Your task to perform on an android device: Open CNN.com Image 0: 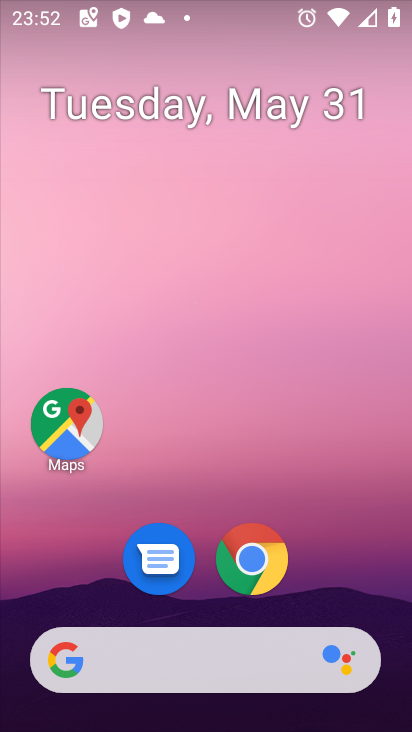
Step 0: drag from (314, 580) to (301, 37)
Your task to perform on an android device: Open CNN.com Image 1: 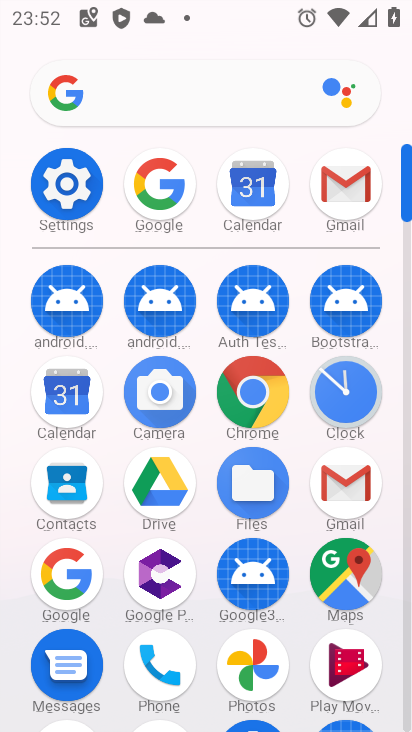
Step 1: click (154, 194)
Your task to perform on an android device: Open CNN.com Image 2: 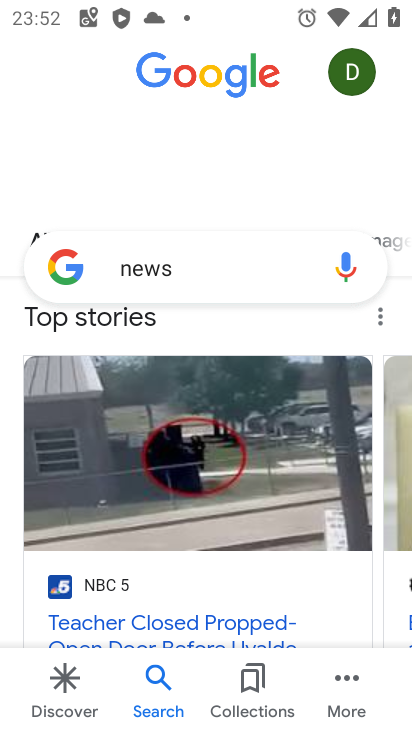
Step 2: click (213, 276)
Your task to perform on an android device: Open CNN.com Image 3: 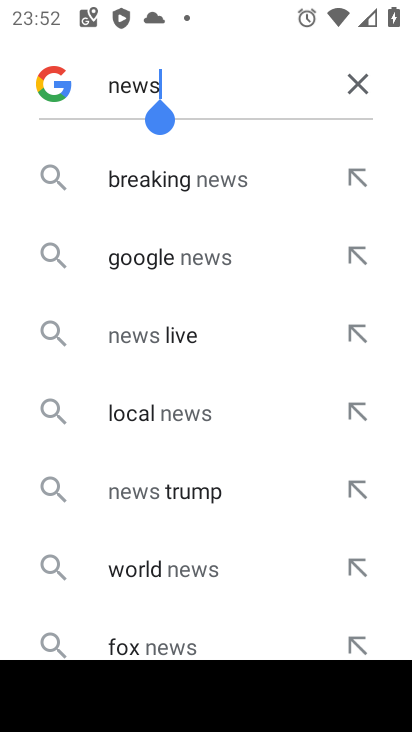
Step 3: click (351, 84)
Your task to perform on an android device: Open CNN.com Image 4: 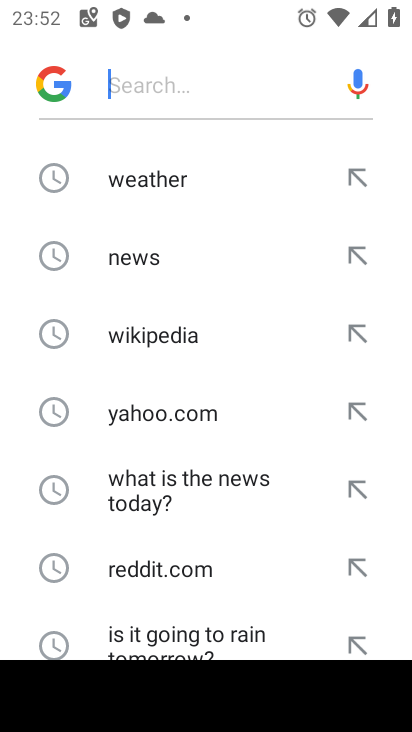
Step 4: drag from (209, 539) to (215, 138)
Your task to perform on an android device: Open CNN.com Image 5: 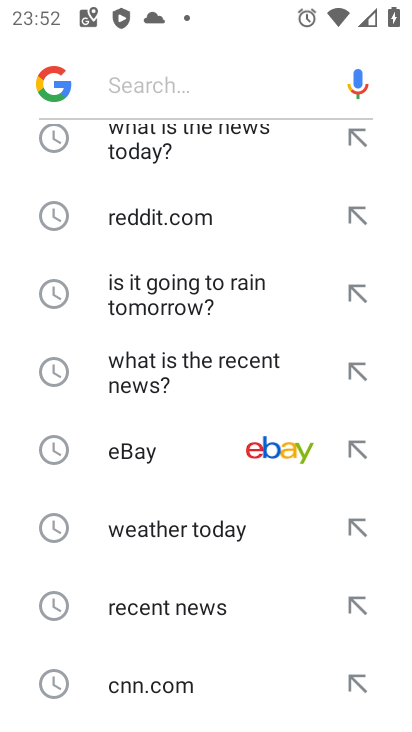
Step 5: click (149, 678)
Your task to perform on an android device: Open CNN.com Image 6: 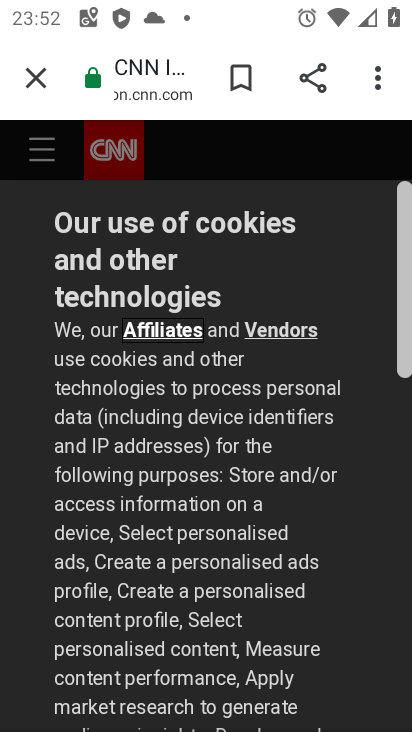
Step 6: task complete